Your task to perform on an android device: turn on wifi Image 0: 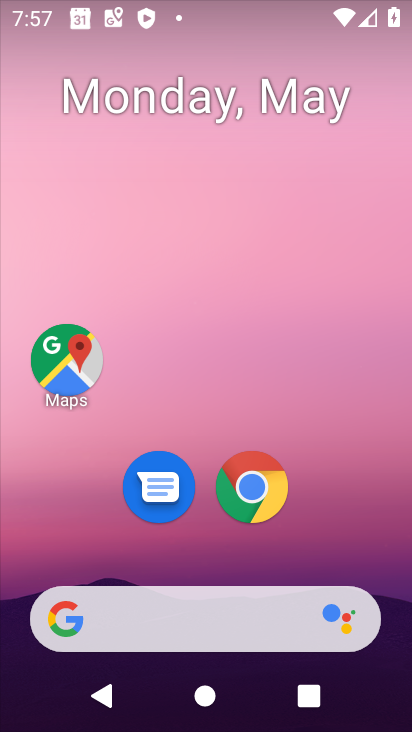
Step 0: drag from (378, 570) to (371, 140)
Your task to perform on an android device: turn on wifi Image 1: 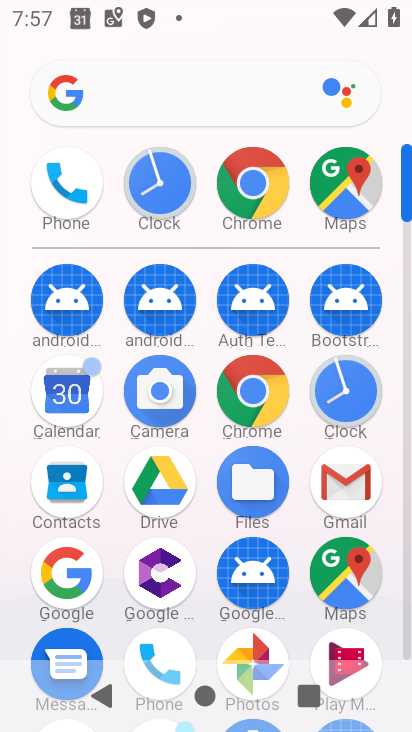
Step 1: drag from (381, 627) to (399, 301)
Your task to perform on an android device: turn on wifi Image 2: 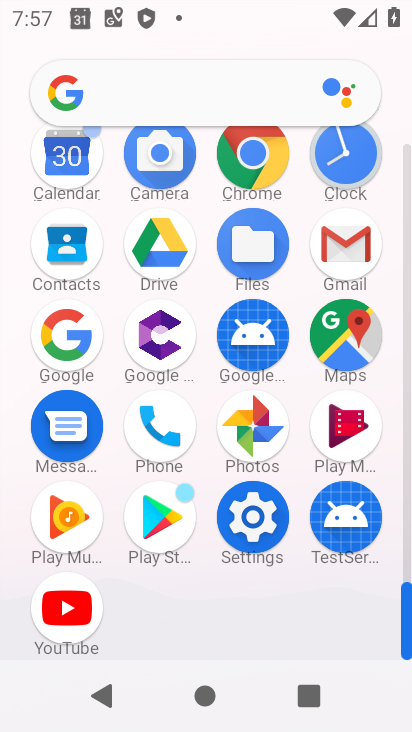
Step 2: click (263, 540)
Your task to perform on an android device: turn on wifi Image 3: 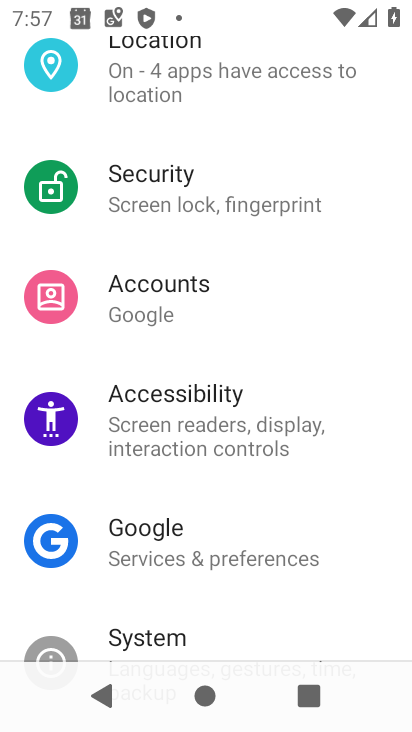
Step 3: drag from (346, 245) to (344, 341)
Your task to perform on an android device: turn on wifi Image 4: 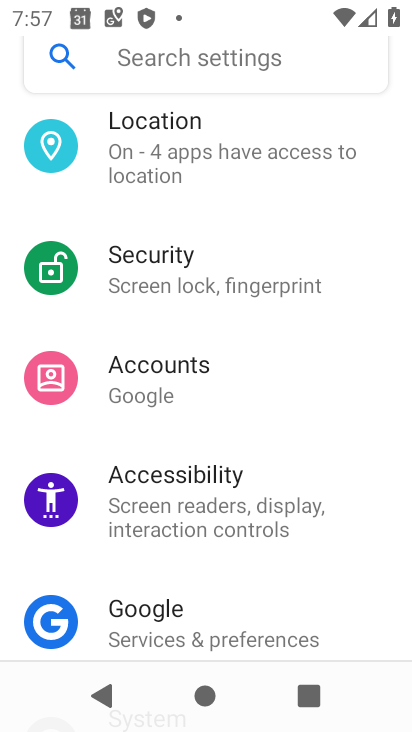
Step 4: drag from (346, 223) to (343, 329)
Your task to perform on an android device: turn on wifi Image 5: 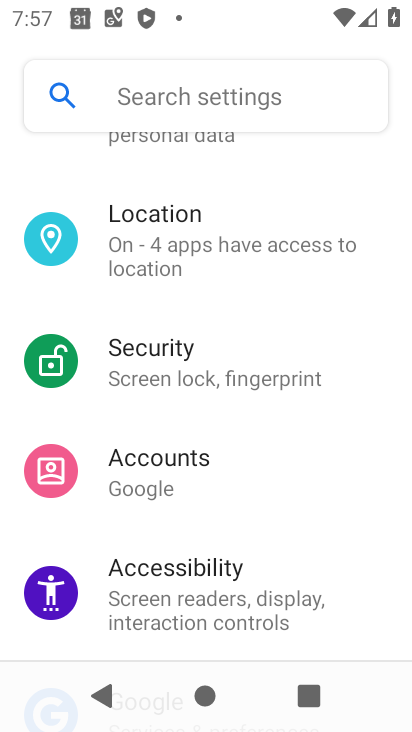
Step 5: drag from (369, 201) to (369, 313)
Your task to perform on an android device: turn on wifi Image 6: 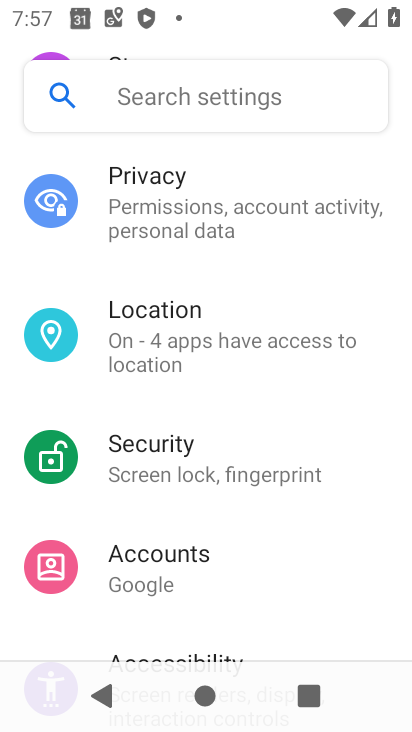
Step 6: drag from (364, 256) to (366, 387)
Your task to perform on an android device: turn on wifi Image 7: 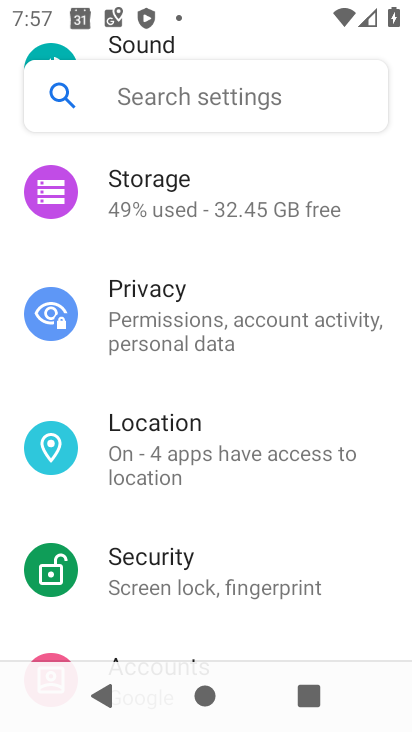
Step 7: drag from (377, 191) to (371, 347)
Your task to perform on an android device: turn on wifi Image 8: 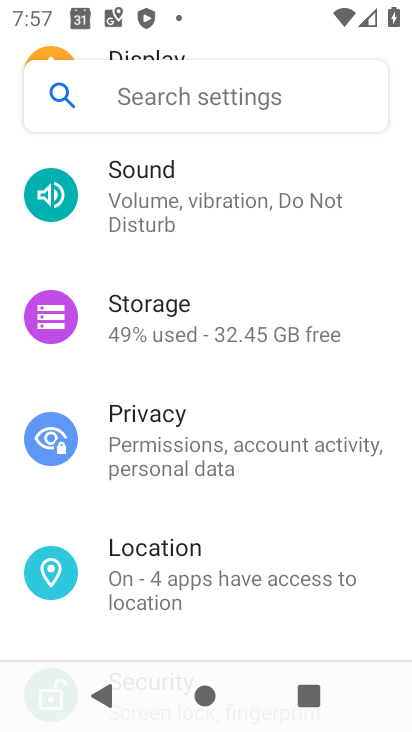
Step 8: drag from (373, 162) to (373, 328)
Your task to perform on an android device: turn on wifi Image 9: 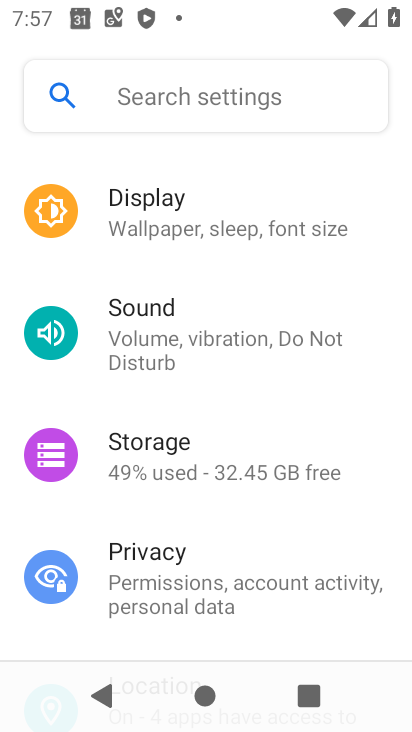
Step 9: drag from (372, 182) to (371, 326)
Your task to perform on an android device: turn on wifi Image 10: 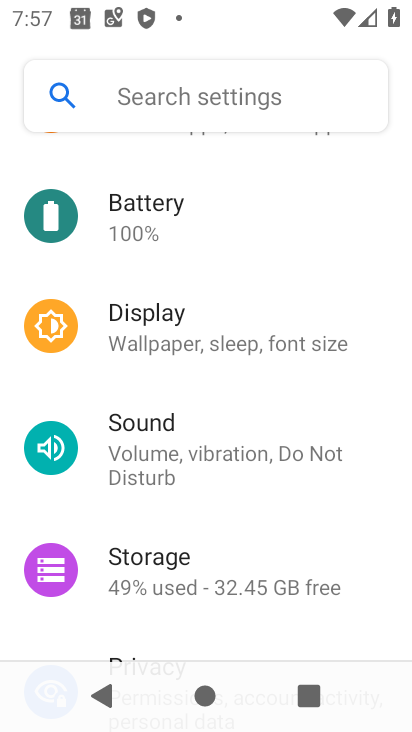
Step 10: drag from (359, 162) to (360, 306)
Your task to perform on an android device: turn on wifi Image 11: 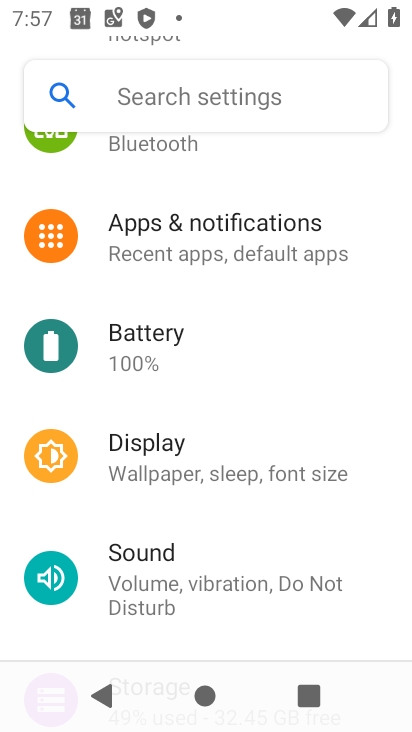
Step 11: drag from (370, 166) to (368, 299)
Your task to perform on an android device: turn on wifi Image 12: 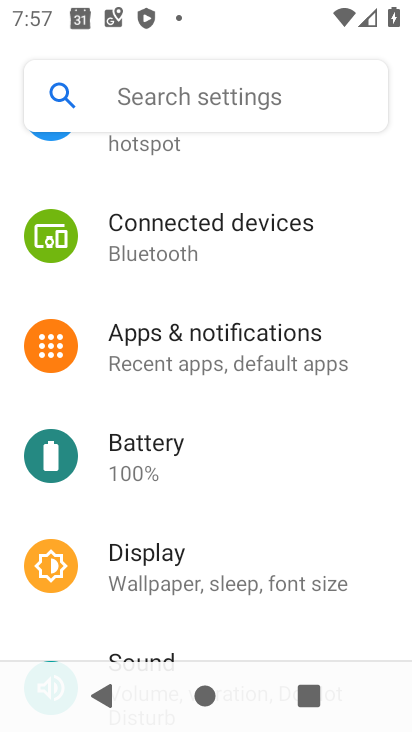
Step 12: drag from (364, 170) to (367, 319)
Your task to perform on an android device: turn on wifi Image 13: 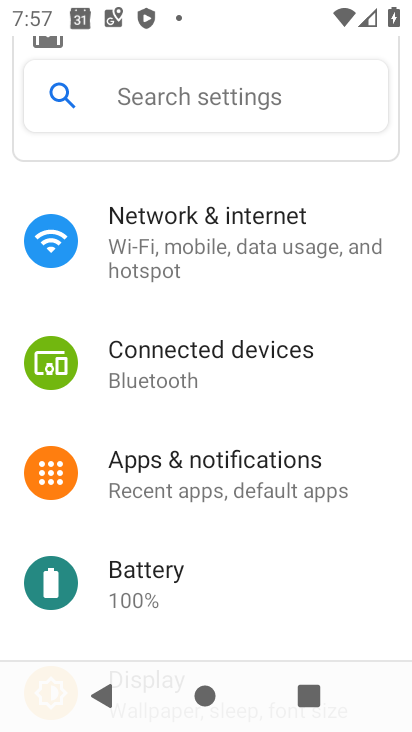
Step 13: drag from (374, 198) to (379, 356)
Your task to perform on an android device: turn on wifi Image 14: 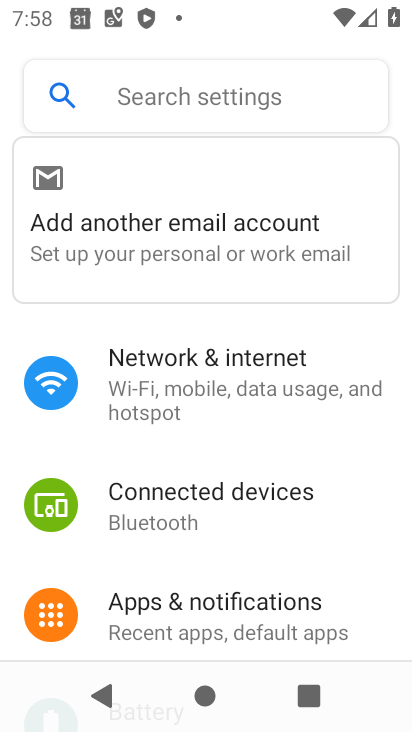
Step 14: click (266, 389)
Your task to perform on an android device: turn on wifi Image 15: 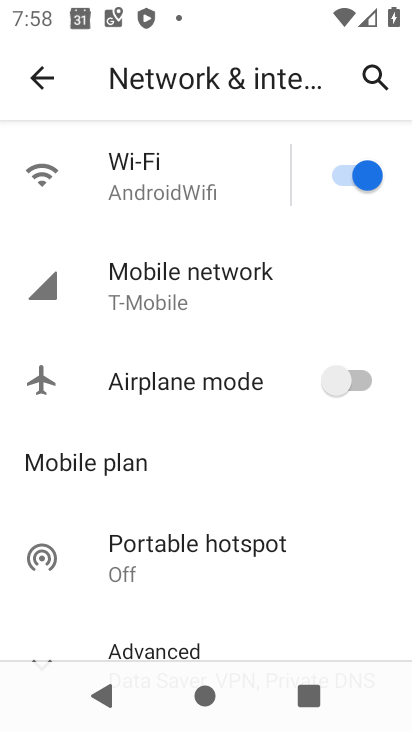
Step 15: task complete